Your task to perform on an android device: Go to Wikipedia Image 0: 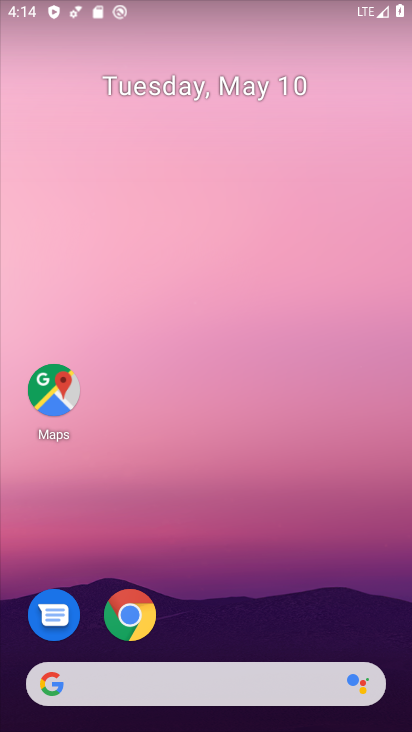
Step 0: click (116, 614)
Your task to perform on an android device: Go to Wikipedia Image 1: 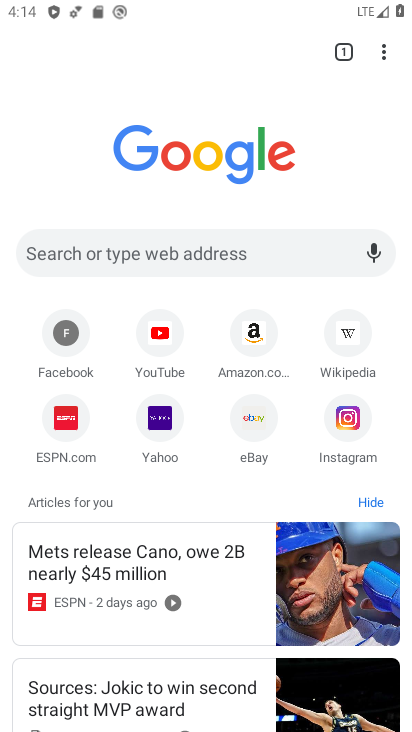
Step 1: click (338, 344)
Your task to perform on an android device: Go to Wikipedia Image 2: 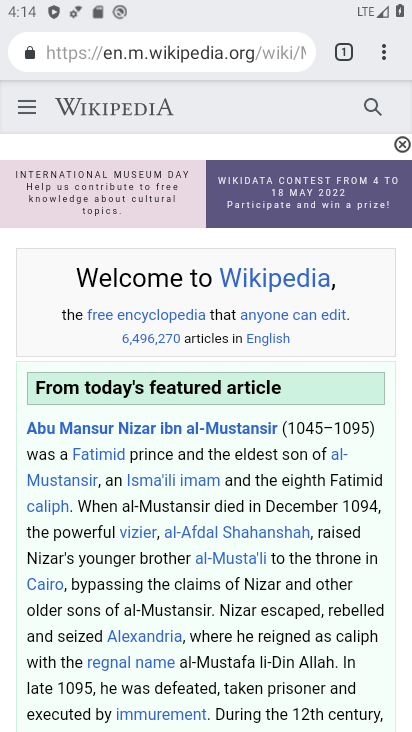
Step 2: task complete